Your task to perform on an android device: Open Google Maps Image 0: 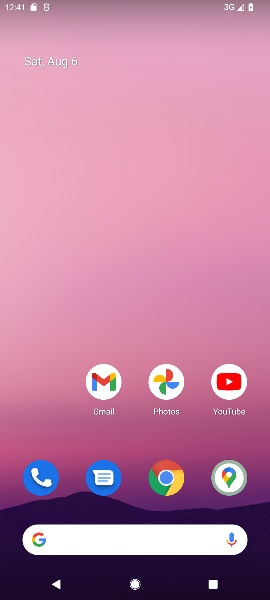
Step 0: click (234, 480)
Your task to perform on an android device: Open Google Maps Image 1: 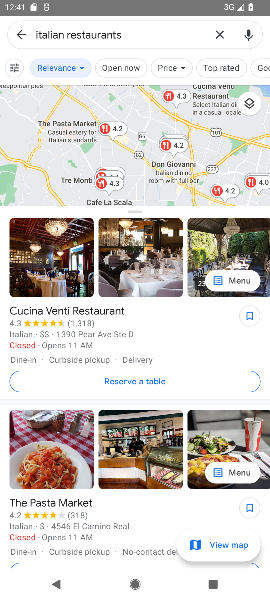
Step 1: click (219, 35)
Your task to perform on an android device: Open Google Maps Image 2: 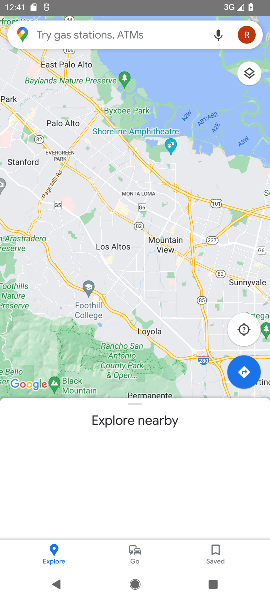
Step 2: task complete